Your task to perform on an android device: Go to display settings Image 0: 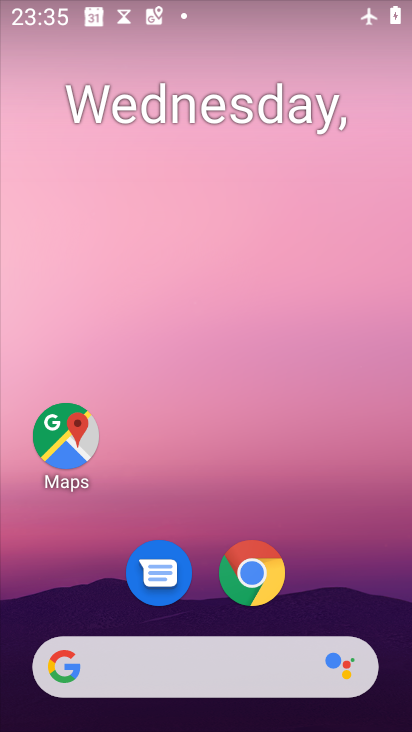
Step 0: drag from (347, 607) to (280, 234)
Your task to perform on an android device: Go to display settings Image 1: 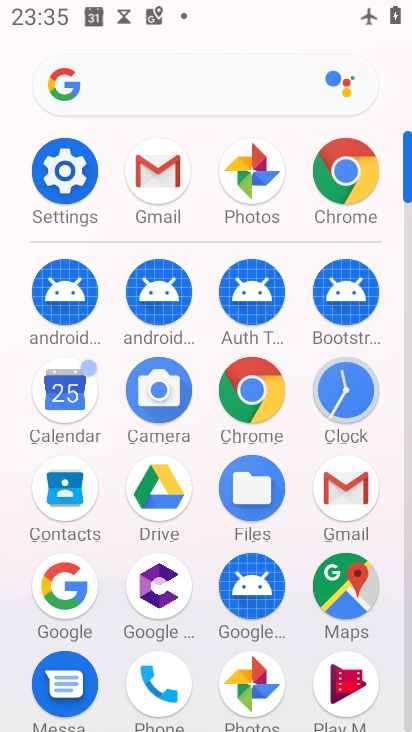
Step 1: click (50, 170)
Your task to perform on an android device: Go to display settings Image 2: 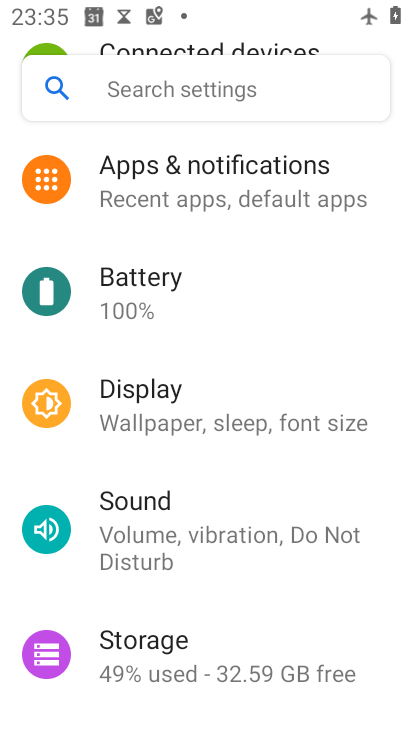
Step 2: click (219, 419)
Your task to perform on an android device: Go to display settings Image 3: 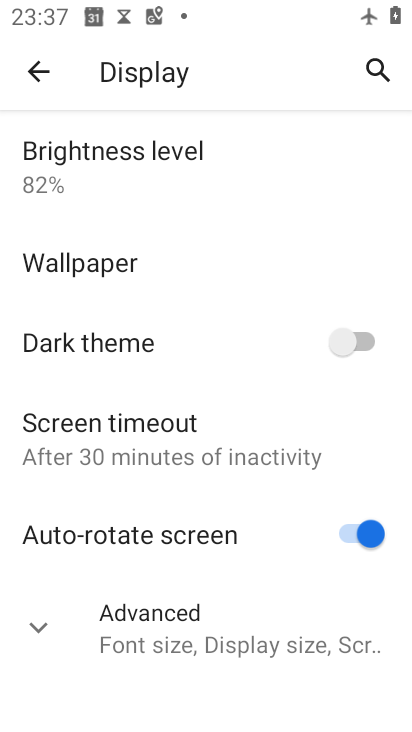
Step 3: task complete